Your task to perform on an android device: all mails in gmail Image 0: 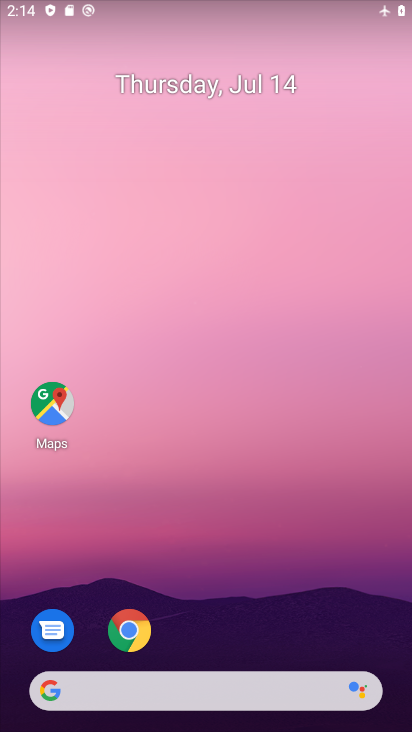
Step 0: press home button
Your task to perform on an android device: all mails in gmail Image 1: 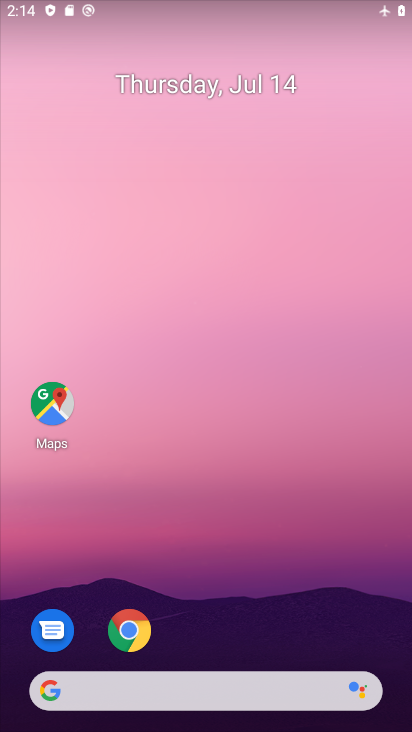
Step 1: drag from (219, 633) to (247, 183)
Your task to perform on an android device: all mails in gmail Image 2: 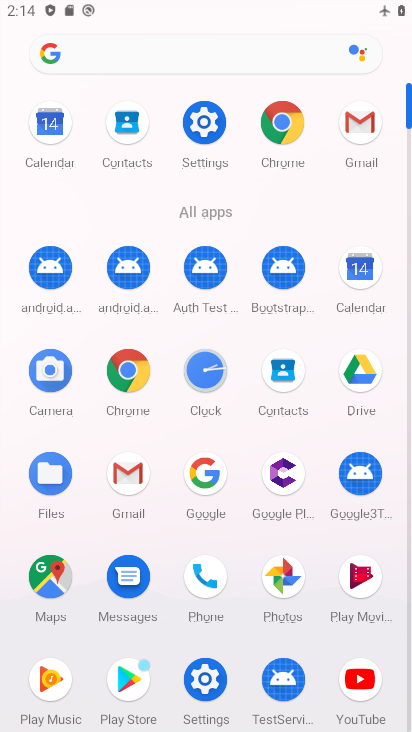
Step 2: click (356, 132)
Your task to perform on an android device: all mails in gmail Image 3: 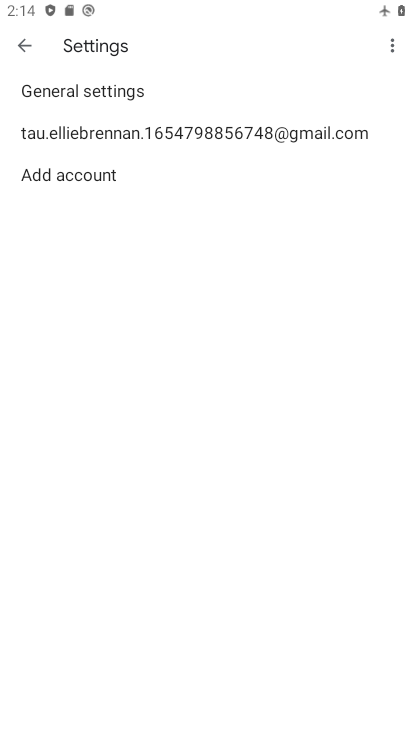
Step 3: click (25, 51)
Your task to perform on an android device: all mails in gmail Image 4: 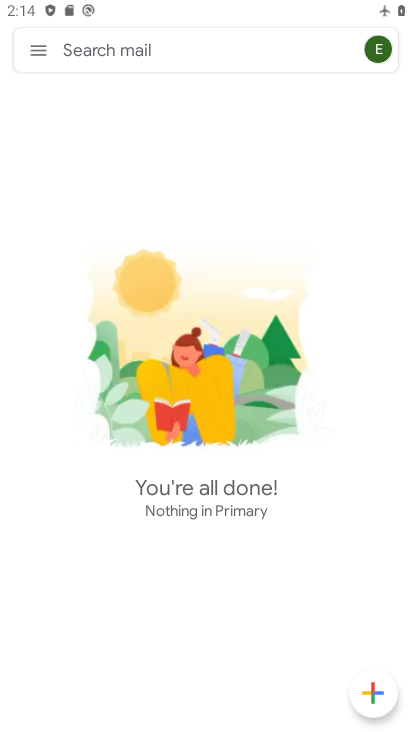
Step 4: click (25, 51)
Your task to perform on an android device: all mails in gmail Image 5: 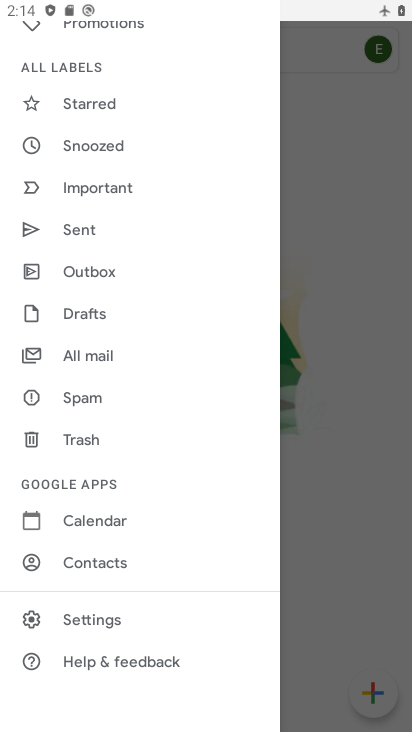
Step 5: click (120, 351)
Your task to perform on an android device: all mails in gmail Image 6: 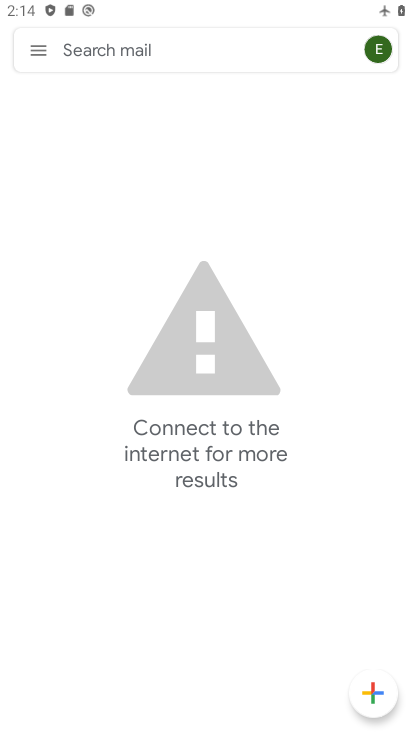
Step 6: task complete